Your task to perform on an android device: check the backup settings in the google photos Image 0: 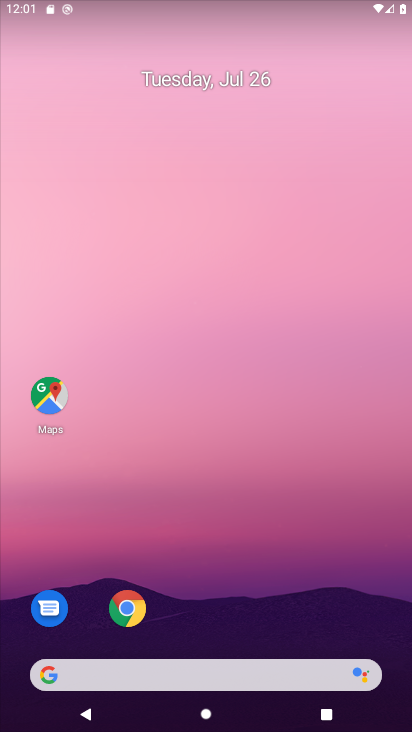
Step 0: drag from (221, 515) to (239, 53)
Your task to perform on an android device: check the backup settings in the google photos Image 1: 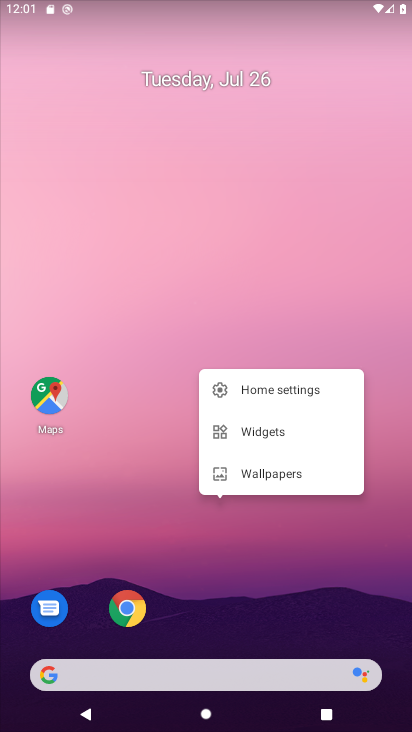
Step 1: drag from (215, 544) to (227, 24)
Your task to perform on an android device: check the backup settings in the google photos Image 2: 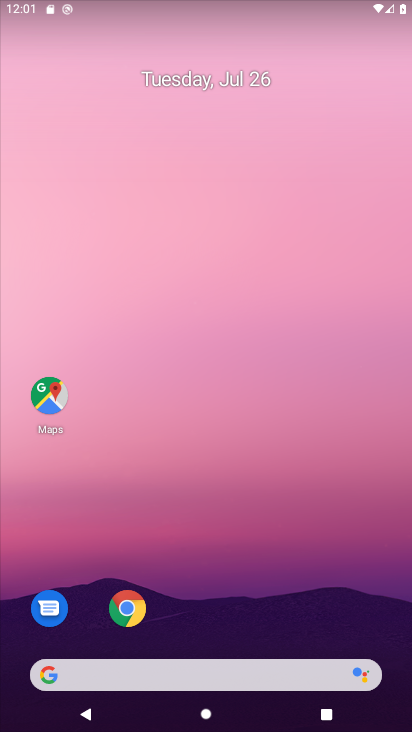
Step 2: drag from (231, 607) to (239, 0)
Your task to perform on an android device: check the backup settings in the google photos Image 3: 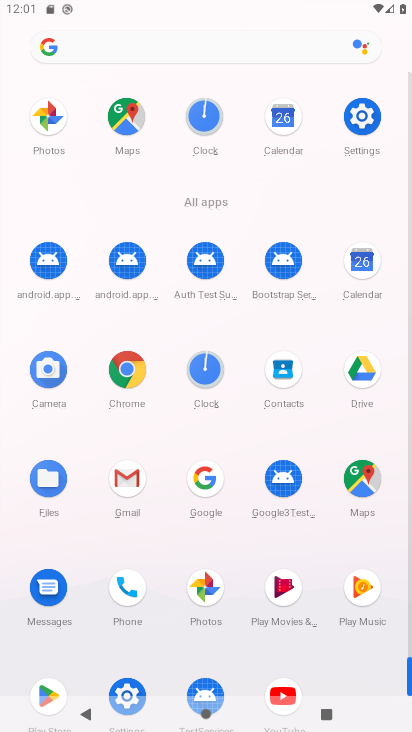
Step 3: click (206, 593)
Your task to perform on an android device: check the backup settings in the google photos Image 4: 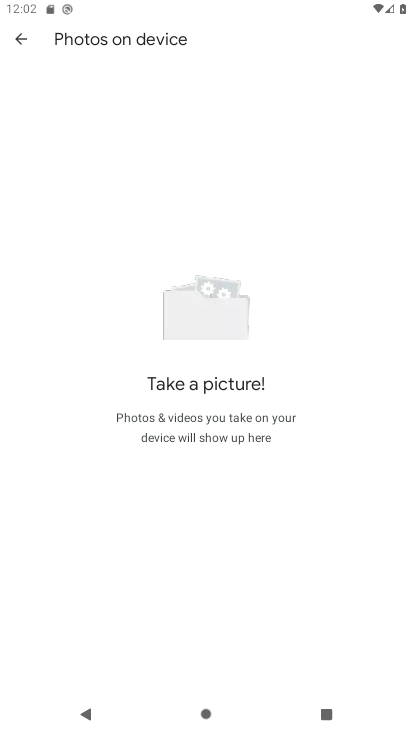
Step 4: click (25, 37)
Your task to perform on an android device: check the backup settings in the google photos Image 5: 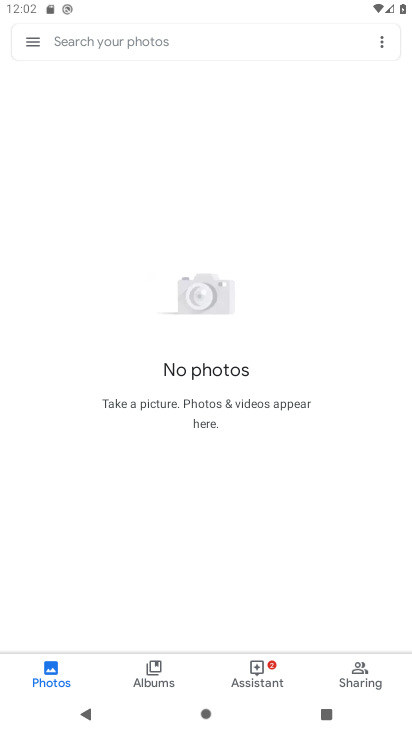
Step 5: click (30, 40)
Your task to perform on an android device: check the backup settings in the google photos Image 6: 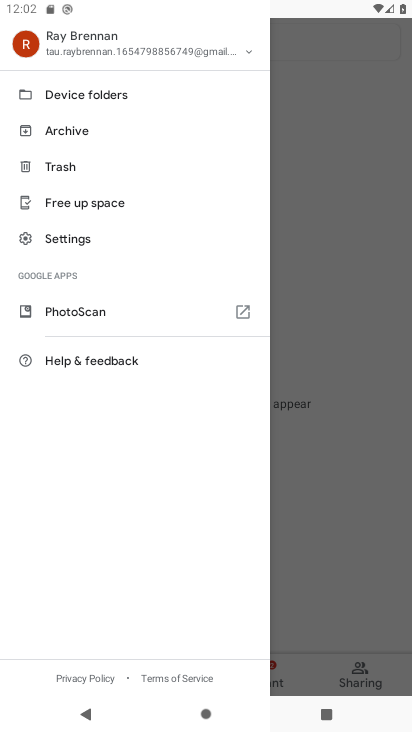
Step 6: click (79, 240)
Your task to perform on an android device: check the backup settings in the google photos Image 7: 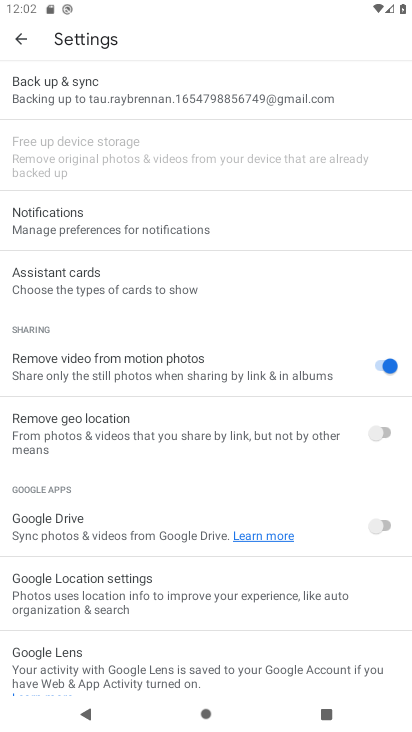
Step 7: click (63, 92)
Your task to perform on an android device: check the backup settings in the google photos Image 8: 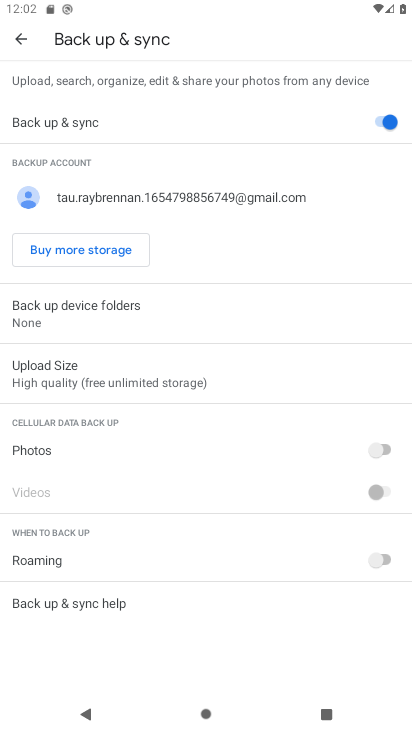
Step 8: task complete